Your task to perform on an android device: toggle location history Image 0: 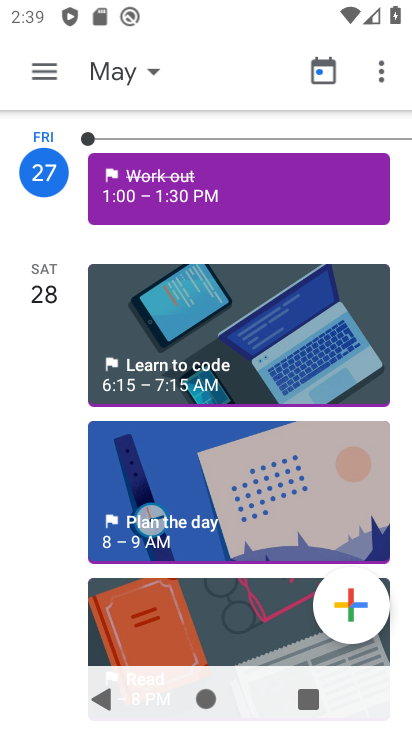
Step 0: press home button
Your task to perform on an android device: toggle location history Image 1: 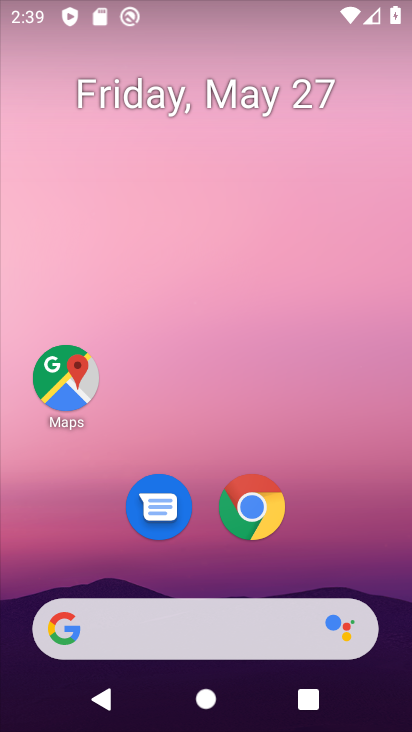
Step 1: drag from (344, 546) to (326, 225)
Your task to perform on an android device: toggle location history Image 2: 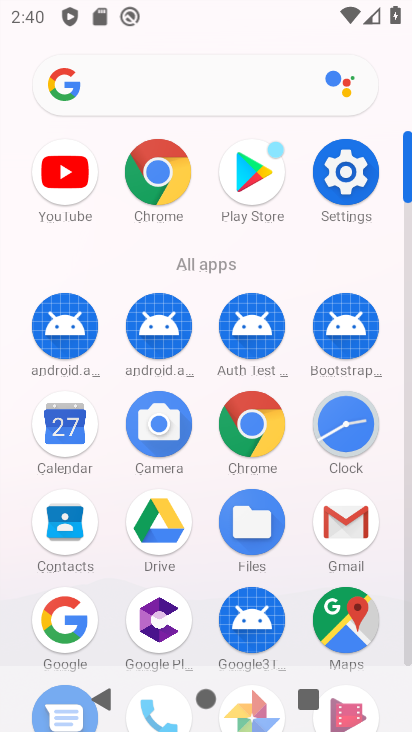
Step 2: click (347, 205)
Your task to perform on an android device: toggle location history Image 3: 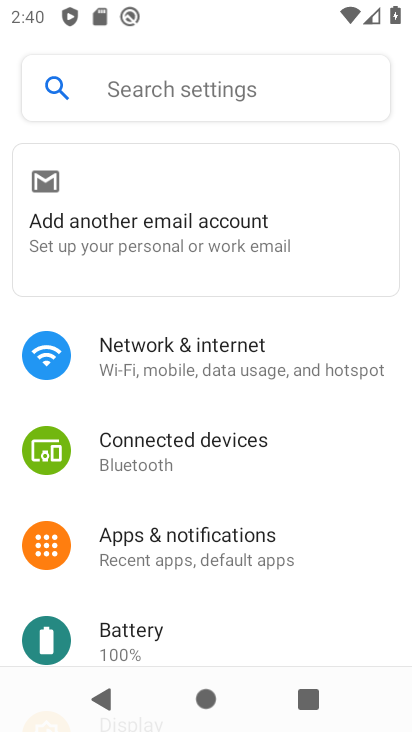
Step 3: drag from (309, 524) to (302, 231)
Your task to perform on an android device: toggle location history Image 4: 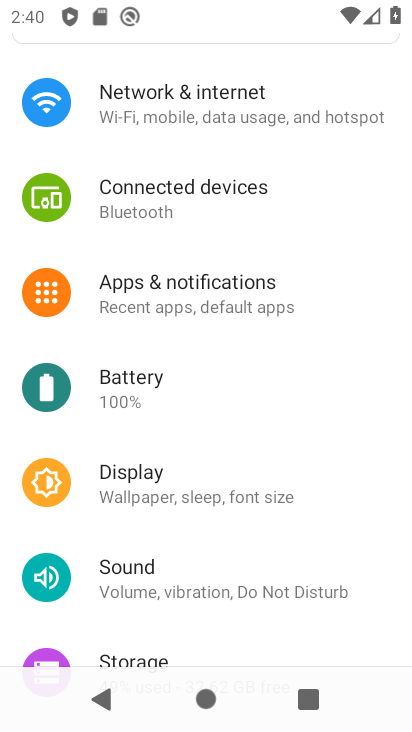
Step 4: drag from (306, 489) to (306, 269)
Your task to perform on an android device: toggle location history Image 5: 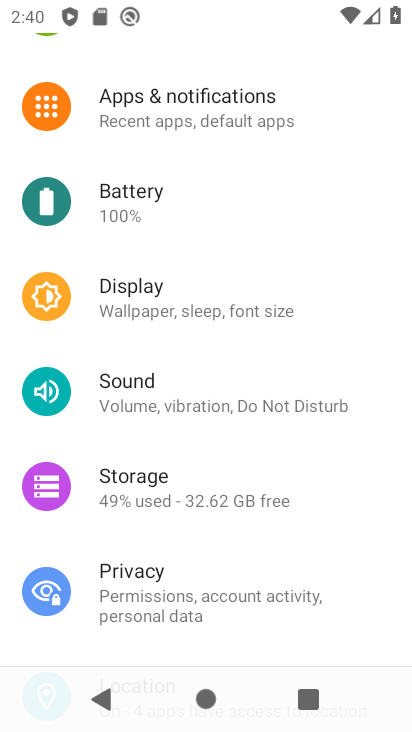
Step 5: drag from (256, 527) to (253, 304)
Your task to perform on an android device: toggle location history Image 6: 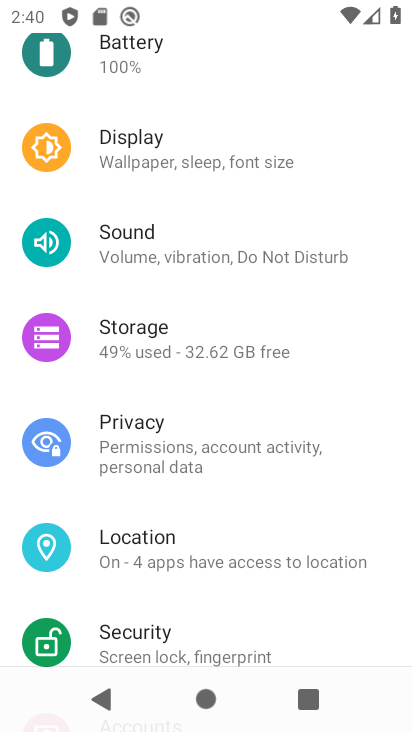
Step 6: click (192, 548)
Your task to perform on an android device: toggle location history Image 7: 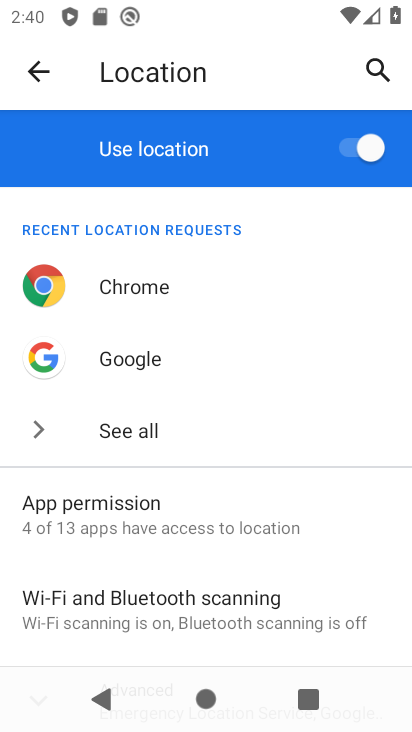
Step 7: drag from (279, 641) to (282, 303)
Your task to perform on an android device: toggle location history Image 8: 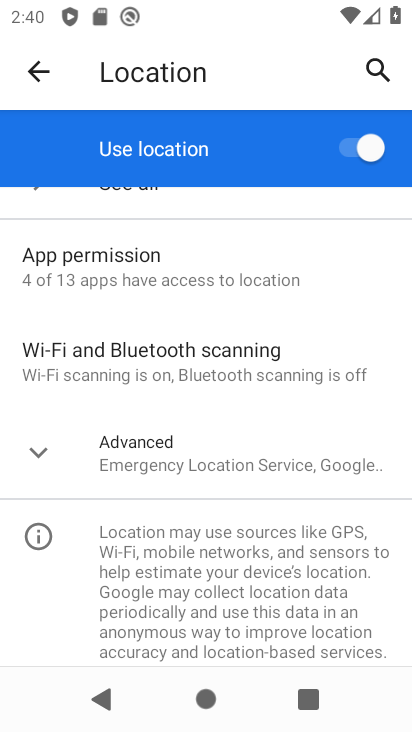
Step 8: click (237, 482)
Your task to perform on an android device: toggle location history Image 9: 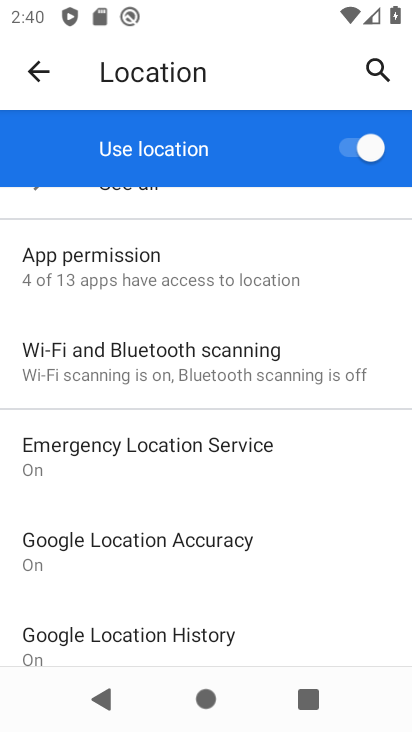
Step 9: drag from (229, 576) to (229, 368)
Your task to perform on an android device: toggle location history Image 10: 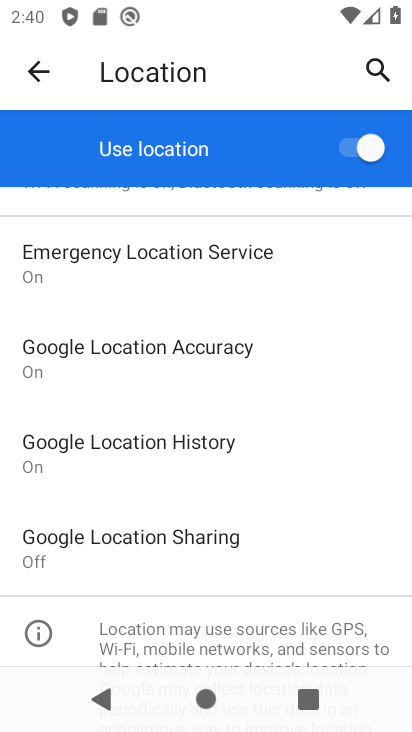
Step 10: click (211, 446)
Your task to perform on an android device: toggle location history Image 11: 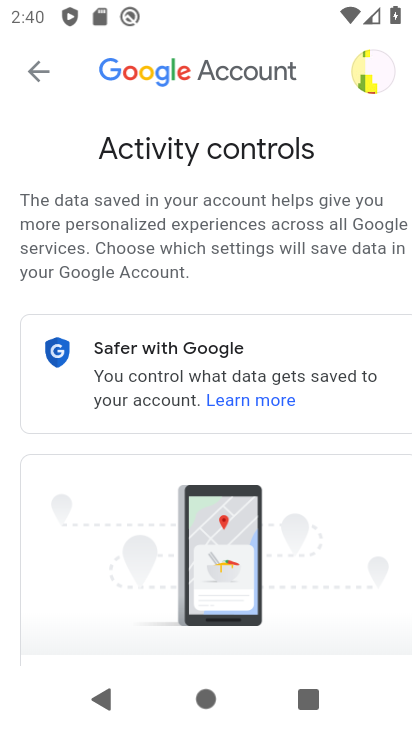
Step 11: drag from (331, 549) to (323, 200)
Your task to perform on an android device: toggle location history Image 12: 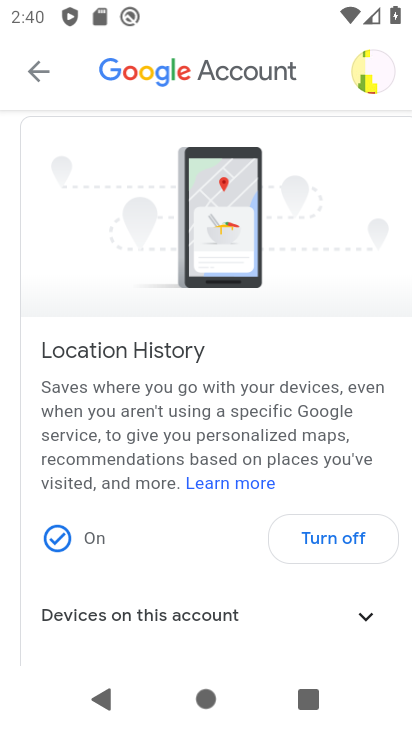
Step 12: drag from (250, 573) to (276, 247)
Your task to perform on an android device: toggle location history Image 13: 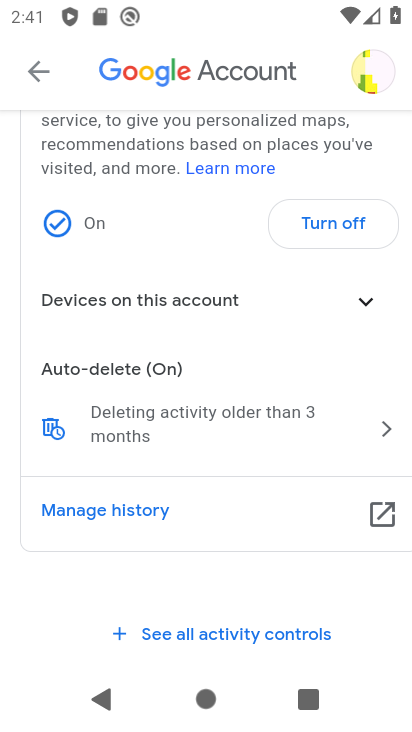
Step 13: drag from (219, 594) to (235, 295)
Your task to perform on an android device: toggle location history Image 14: 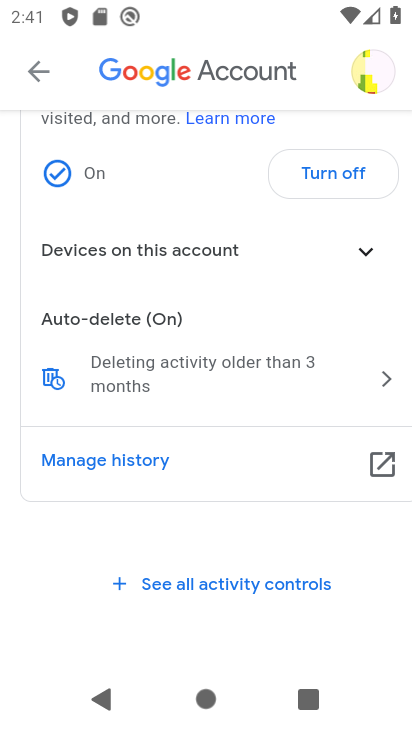
Step 14: click (315, 178)
Your task to perform on an android device: toggle location history Image 15: 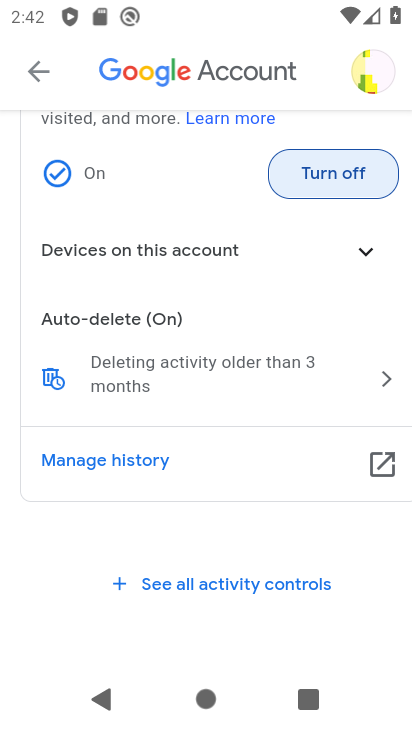
Step 15: click (318, 186)
Your task to perform on an android device: toggle location history Image 16: 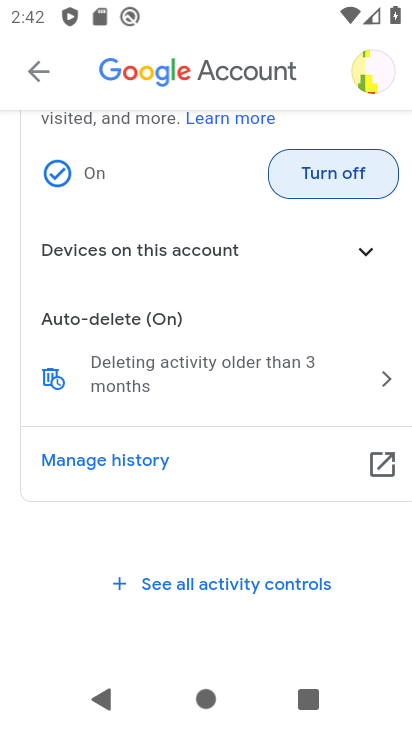
Step 16: click (325, 175)
Your task to perform on an android device: toggle location history Image 17: 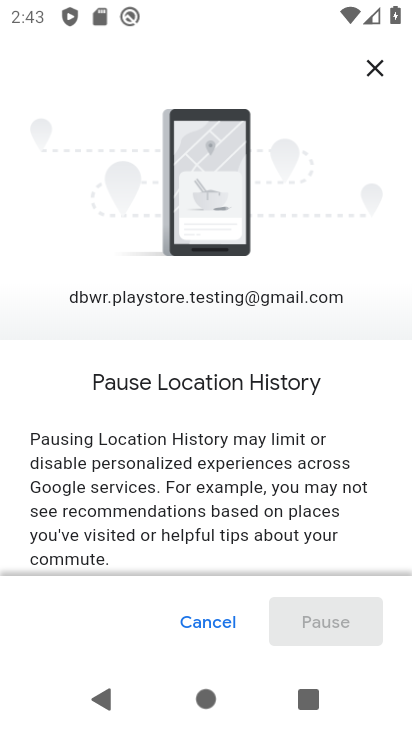
Step 17: drag from (274, 547) to (176, 202)
Your task to perform on an android device: toggle location history Image 18: 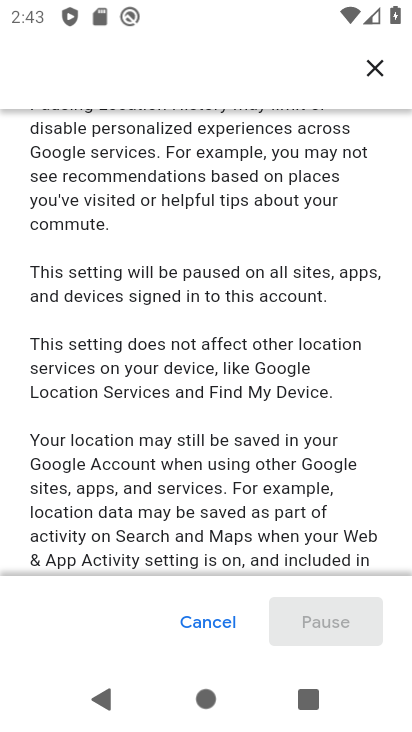
Step 18: drag from (191, 228) to (191, 157)
Your task to perform on an android device: toggle location history Image 19: 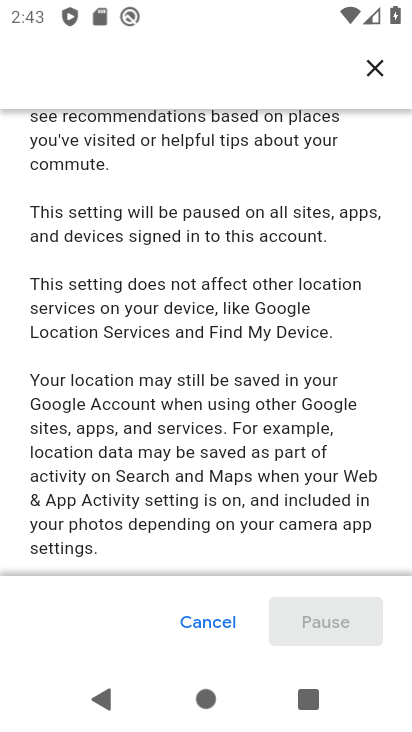
Step 19: drag from (289, 524) to (169, 165)
Your task to perform on an android device: toggle location history Image 20: 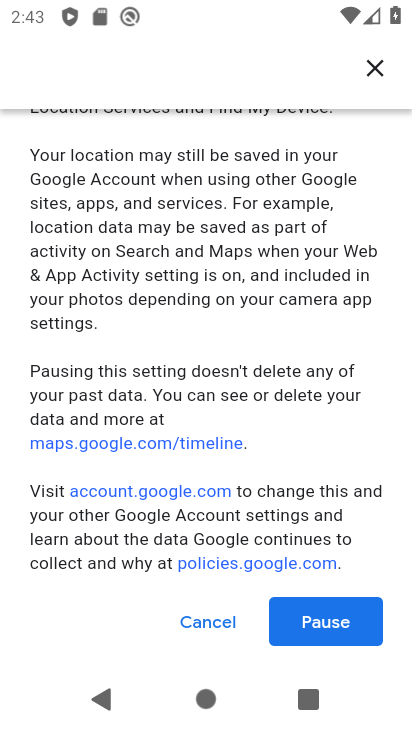
Step 20: click (320, 626)
Your task to perform on an android device: toggle location history Image 21: 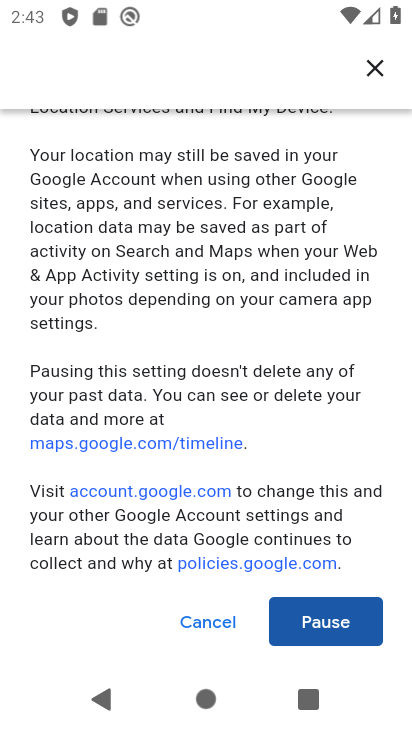
Step 21: click (321, 622)
Your task to perform on an android device: toggle location history Image 22: 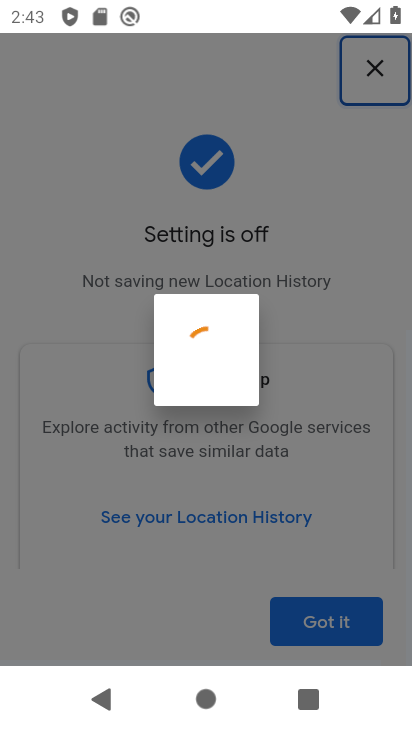
Step 22: click (321, 620)
Your task to perform on an android device: toggle location history Image 23: 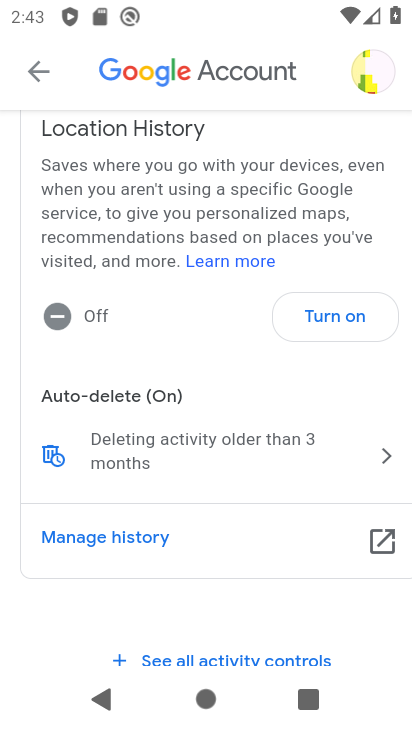
Step 23: task complete